Your task to perform on an android device: turn on showing notifications on the lock screen Image 0: 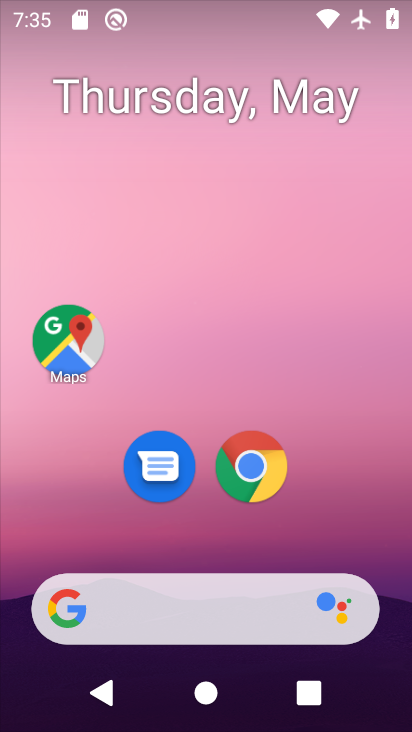
Step 0: drag from (393, 544) to (272, 52)
Your task to perform on an android device: turn on showing notifications on the lock screen Image 1: 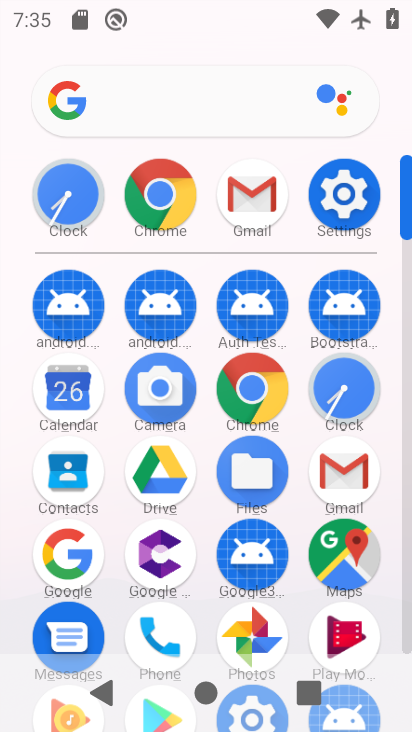
Step 1: click (337, 219)
Your task to perform on an android device: turn on showing notifications on the lock screen Image 2: 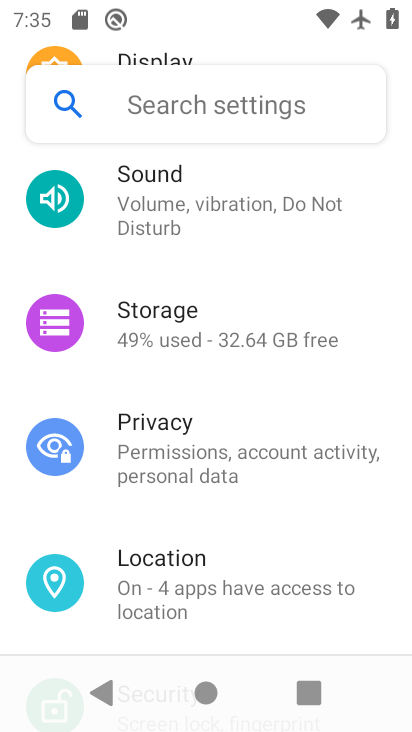
Step 2: task complete